Your task to perform on an android device: Open my contact list Image 0: 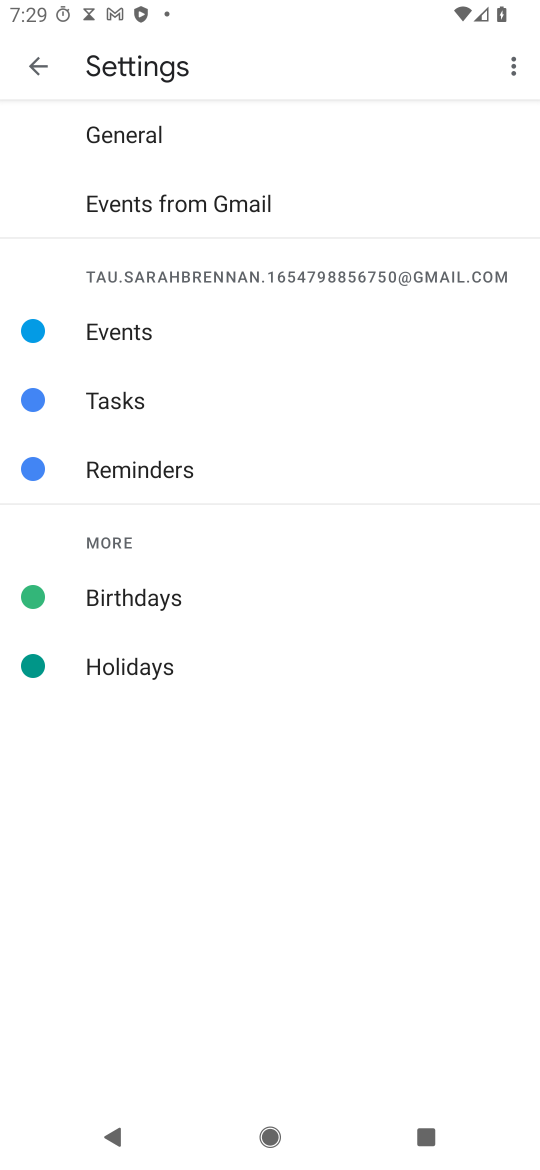
Step 0: press home button
Your task to perform on an android device: Open my contact list Image 1: 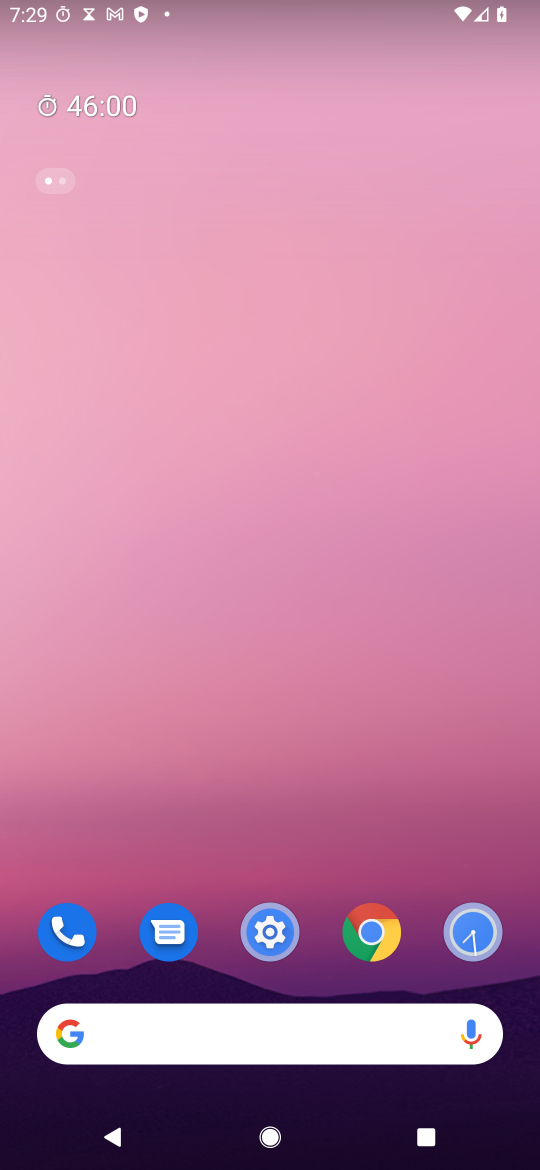
Step 1: drag from (203, 825) to (285, 8)
Your task to perform on an android device: Open my contact list Image 2: 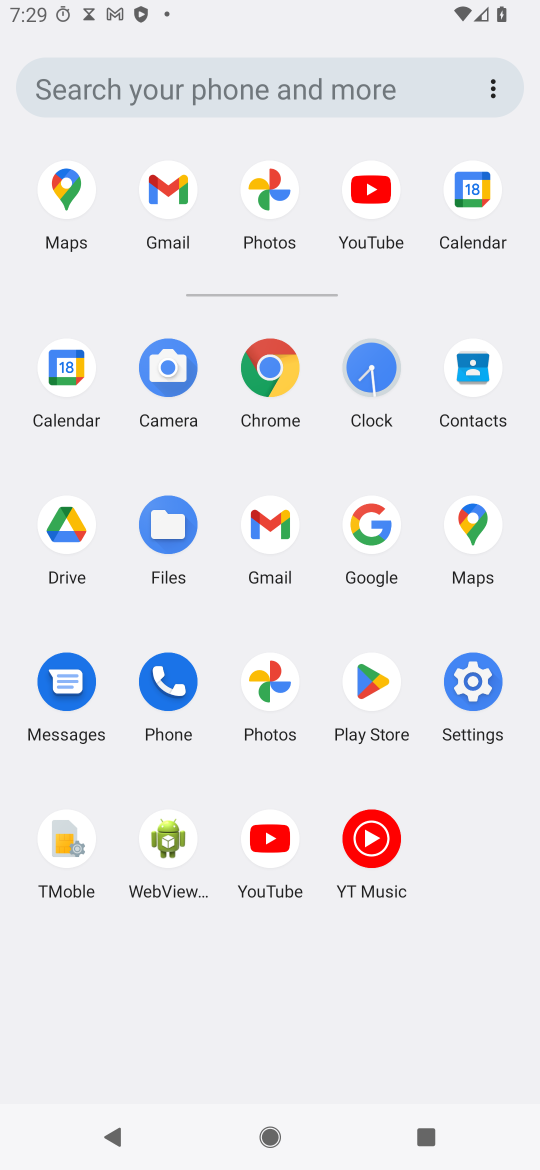
Step 2: click (458, 369)
Your task to perform on an android device: Open my contact list Image 3: 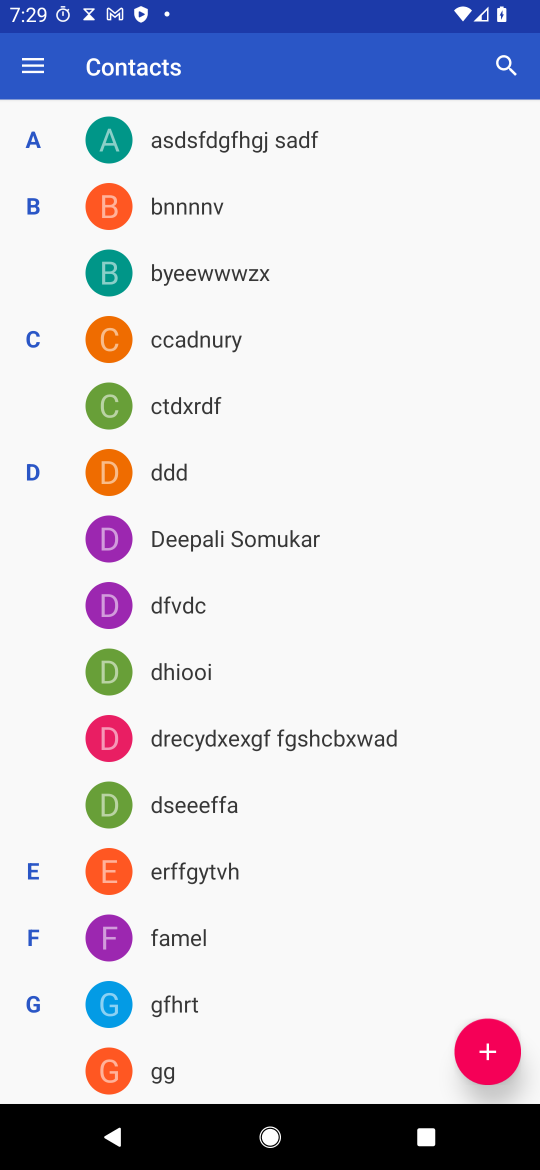
Step 3: task complete